Your task to perform on an android device: Open battery settings Image 0: 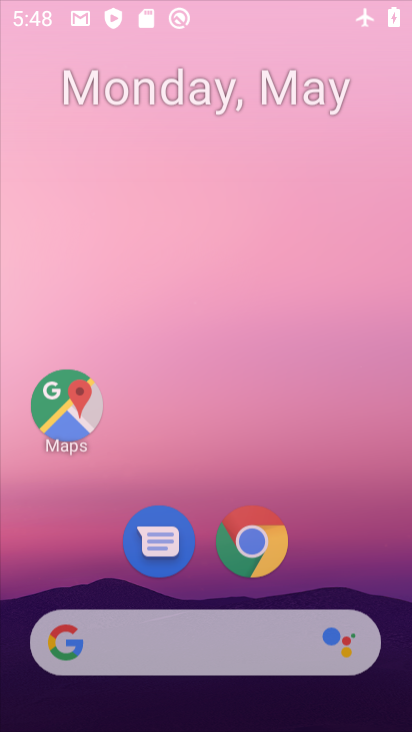
Step 0: drag from (328, 509) to (345, 39)
Your task to perform on an android device: Open battery settings Image 1: 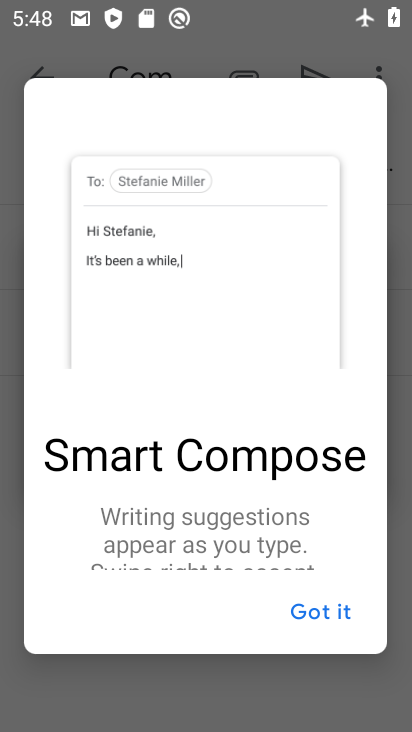
Step 1: press home button
Your task to perform on an android device: Open battery settings Image 2: 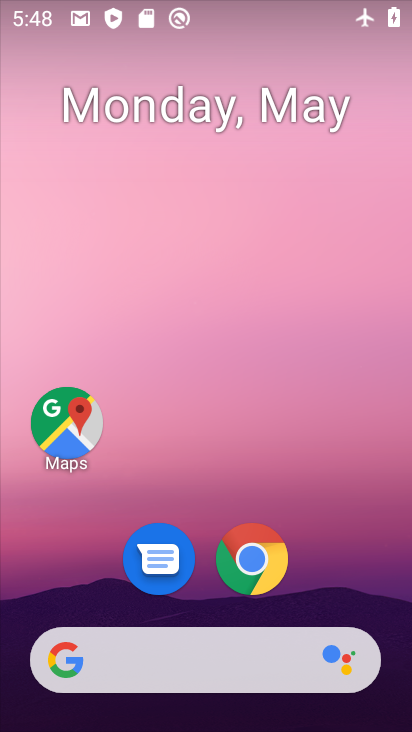
Step 2: drag from (223, 475) to (176, 11)
Your task to perform on an android device: Open battery settings Image 3: 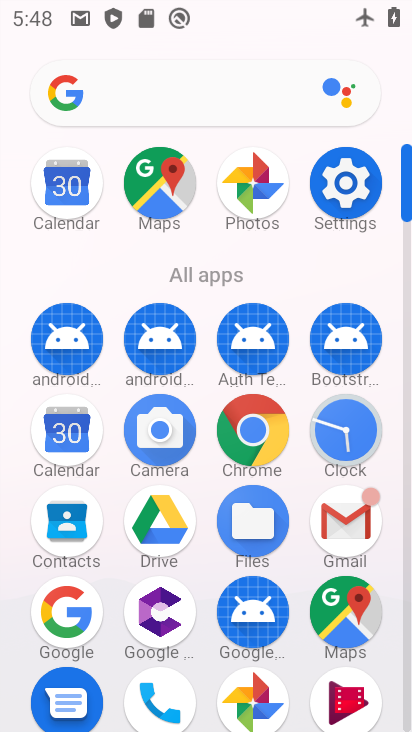
Step 3: click (343, 184)
Your task to perform on an android device: Open battery settings Image 4: 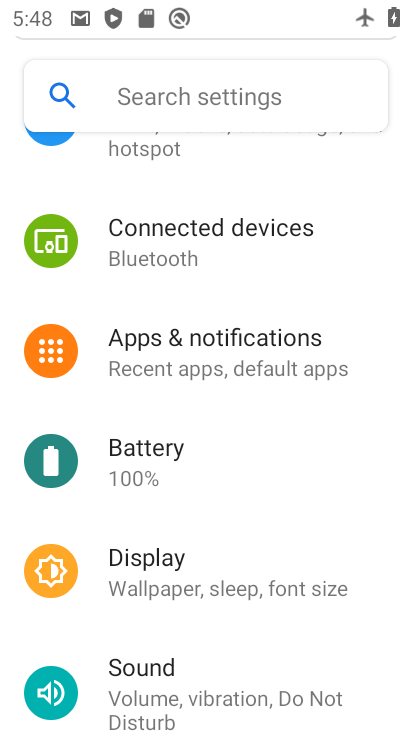
Step 4: click (142, 453)
Your task to perform on an android device: Open battery settings Image 5: 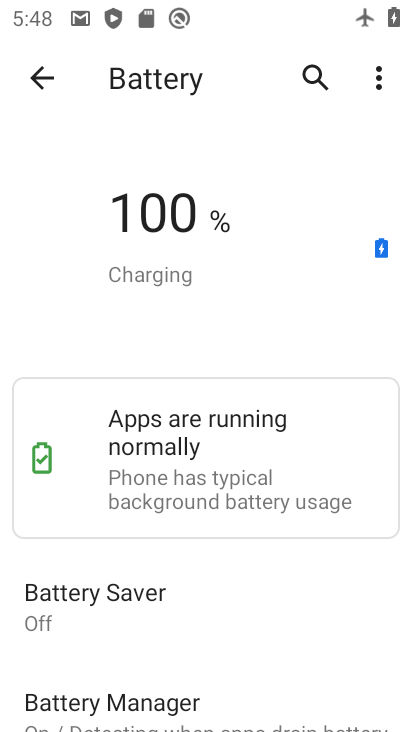
Step 5: task complete